Your task to perform on an android device: add a contact Image 0: 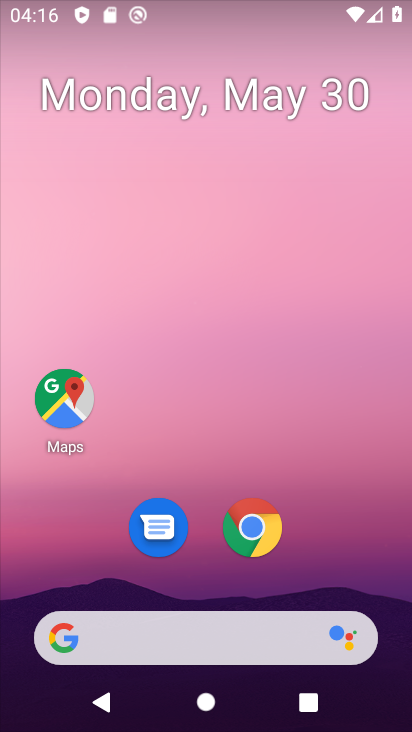
Step 0: drag from (233, 728) to (254, 12)
Your task to perform on an android device: add a contact Image 1: 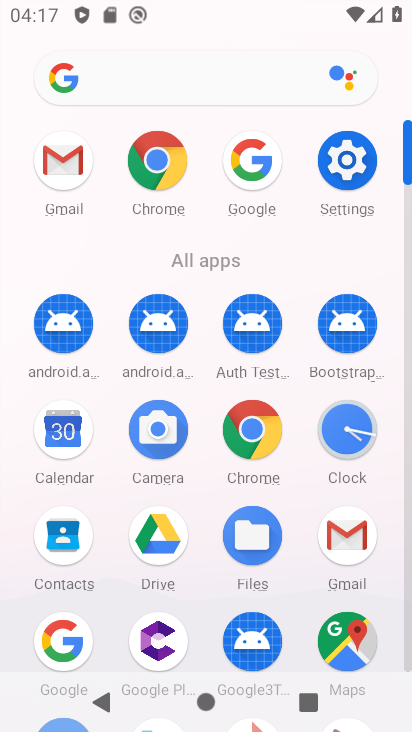
Step 1: click (56, 427)
Your task to perform on an android device: add a contact Image 2: 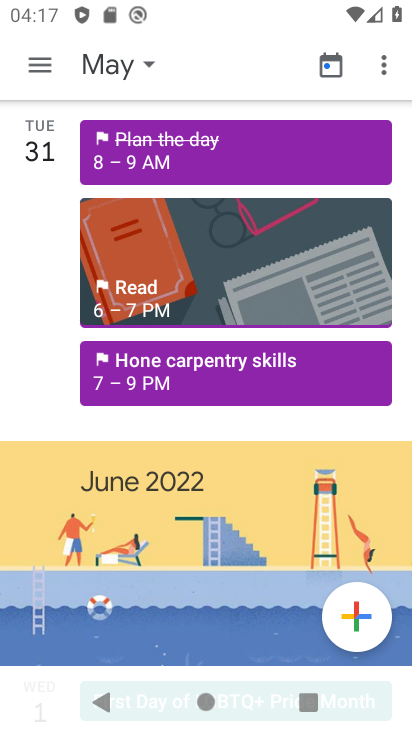
Step 2: press home button
Your task to perform on an android device: add a contact Image 3: 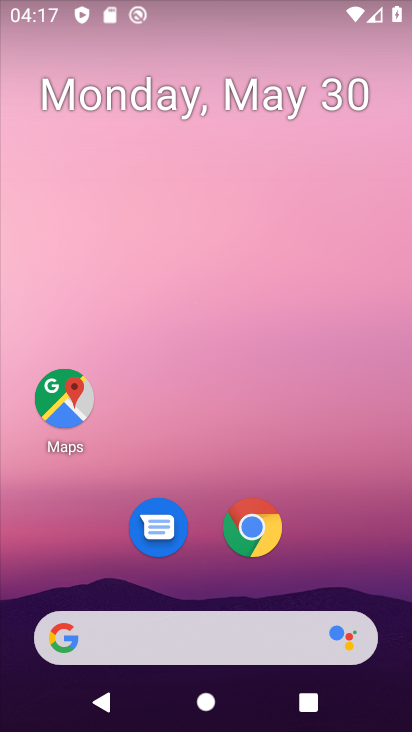
Step 3: drag from (225, 716) to (222, 169)
Your task to perform on an android device: add a contact Image 4: 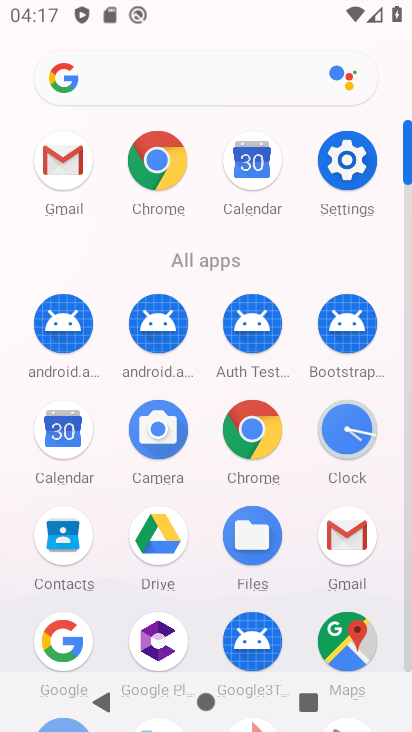
Step 4: click (61, 529)
Your task to perform on an android device: add a contact Image 5: 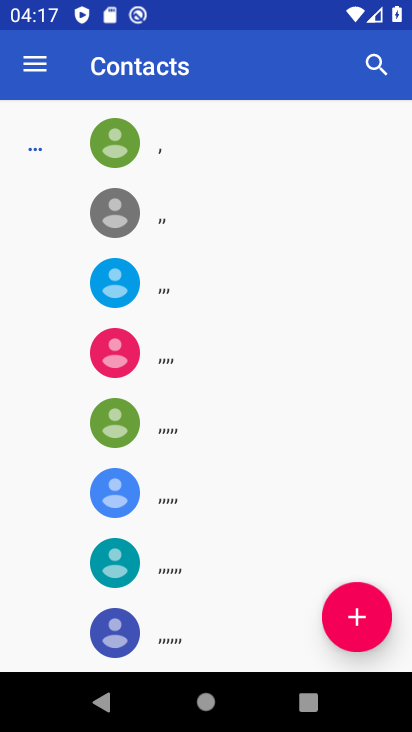
Step 5: click (357, 621)
Your task to perform on an android device: add a contact Image 6: 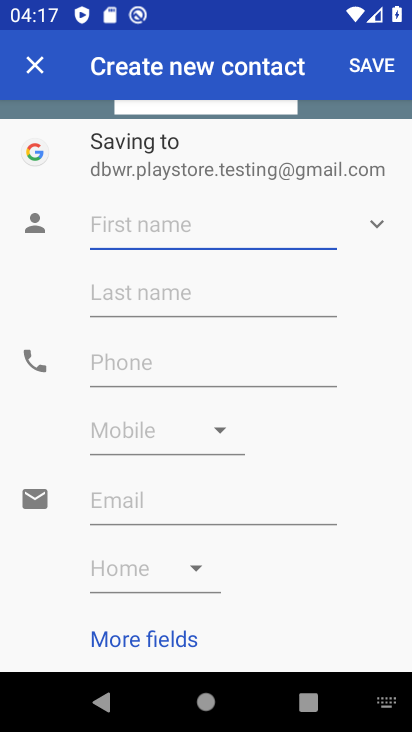
Step 6: type "dushmanta chameera"
Your task to perform on an android device: add a contact Image 7: 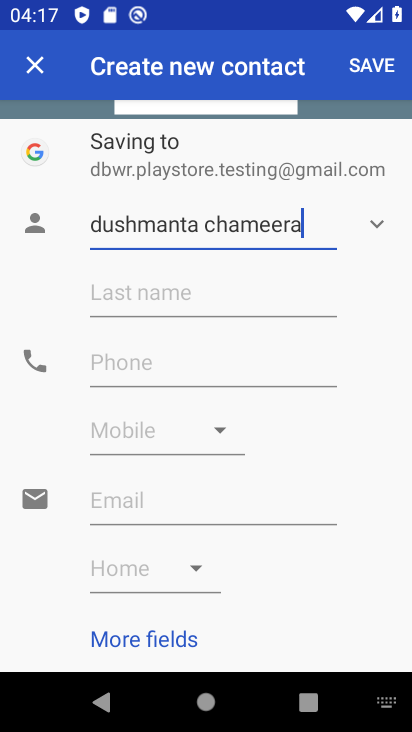
Step 7: click (163, 356)
Your task to perform on an android device: add a contact Image 8: 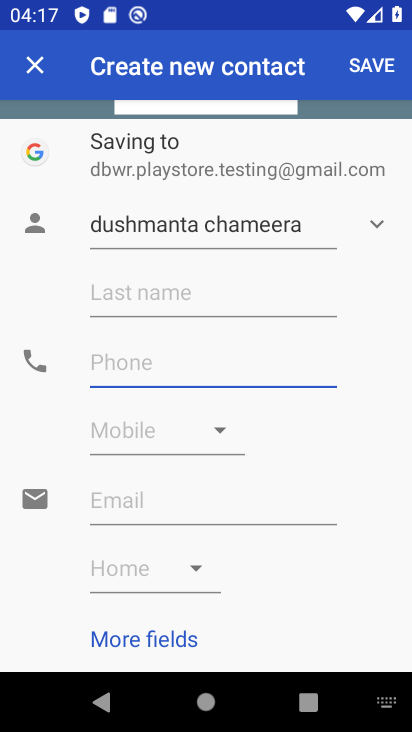
Step 8: type "888"
Your task to perform on an android device: add a contact Image 9: 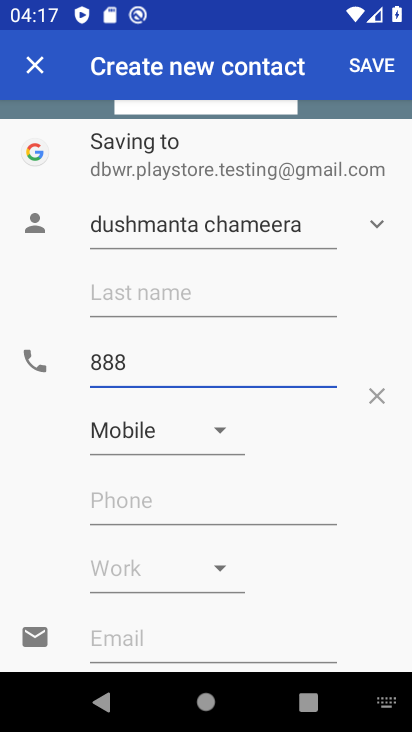
Step 9: click (367, 60)
Your task to perform on an android device: add a contact Image 10: 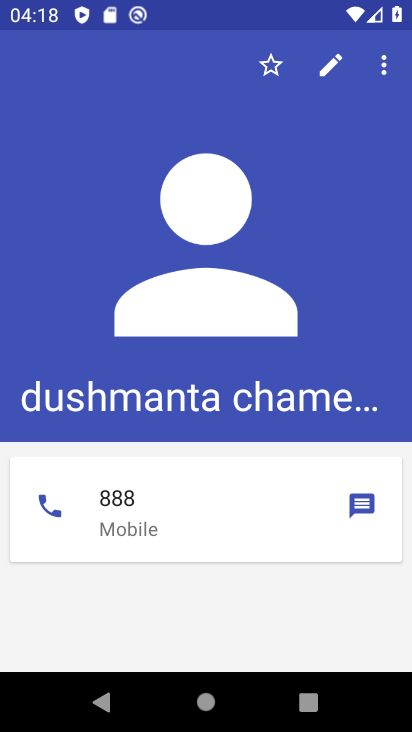
Step 10: task complete